Your task to perform on an android device: Go to Google Image 0: 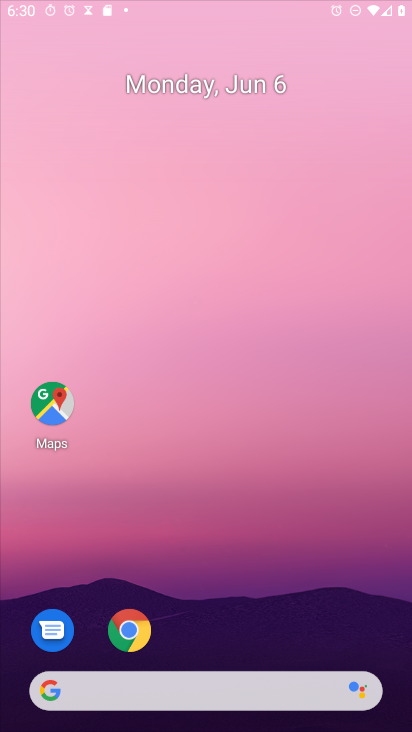
Step 0: click (129, 638)
Your task to perform on an android device: Go to Google Image 1: 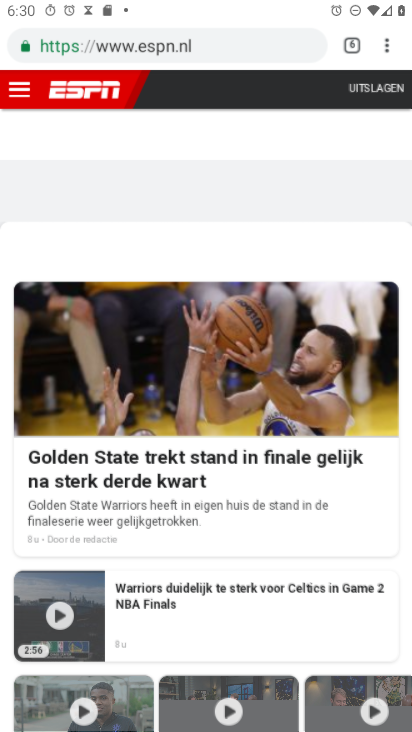
Step 1: press home button
Your task to perform on an android device: Go to Google Image 2: 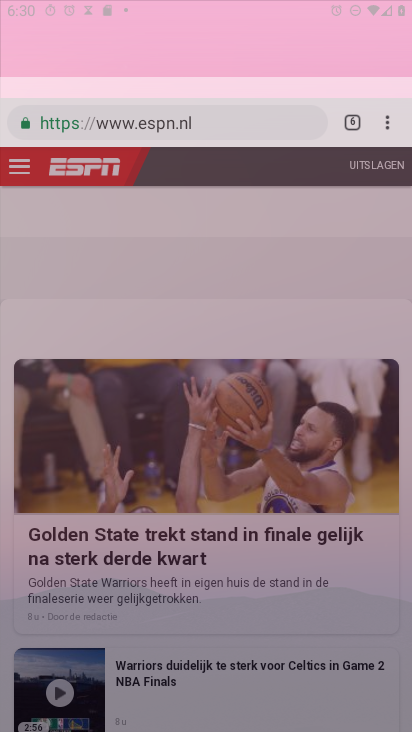
Step 2: drag from (318, 608) to (264, 99)
Your task to perform on an android device: Go to Google Image 3: 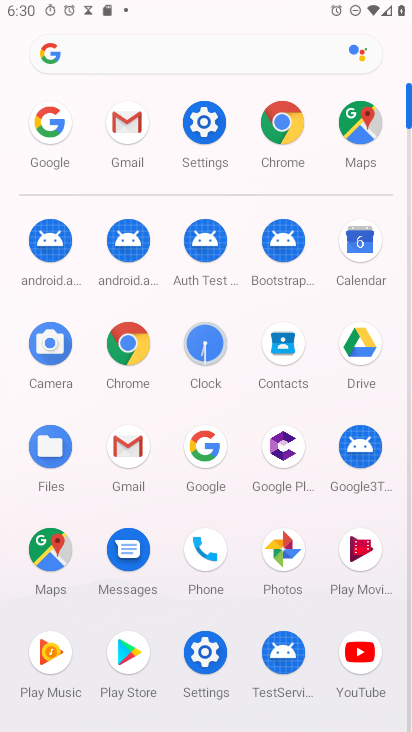
Step 3: click (205, 448)
Your task to perform on an android device: Go to Google Image 4: 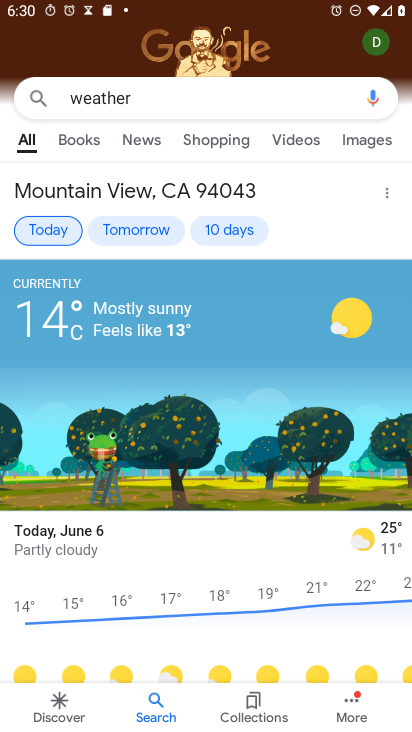
Step 4: task complete